Your task to perform on an android device: visit the assistant section in the google photos Image 0: 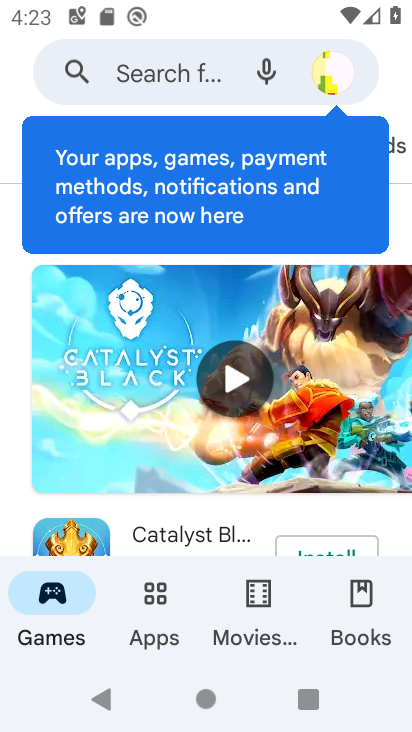
Step 0: press home button
Your task to perform on an android device: visit the assistant section in the google photos Image 1: 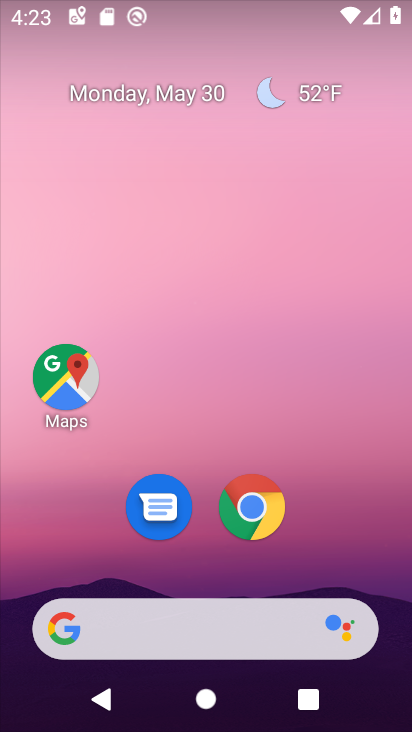
Step 1: drag from (333, 566) to (339, 121)
Your task to perform on an android device: visit the assistant section in the google photos Image 2: 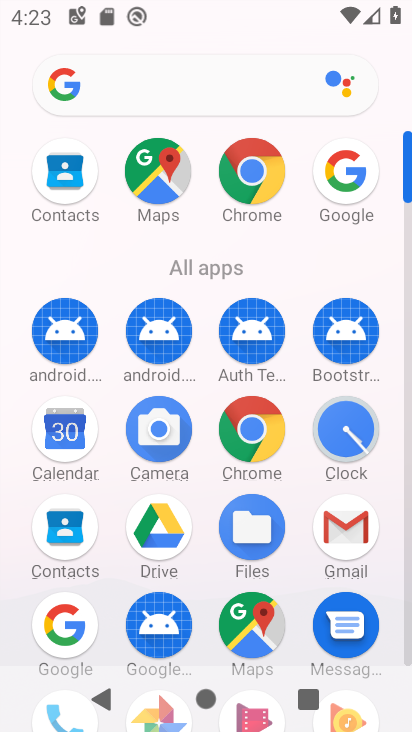
Step 2: drag from (302, 302) to (307, 11)
Your task to perform on an android device: visit the assistant section in the google photos Image 3: 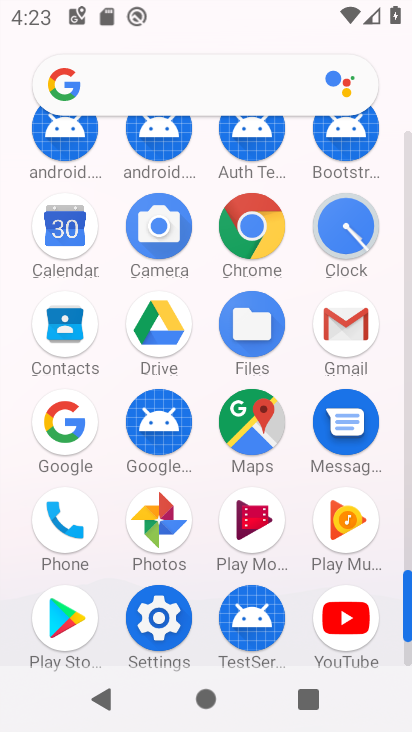
Step 3: click (145, 519)
Your task to perform on an android device: visit the assistant section in the google photos Image 4: 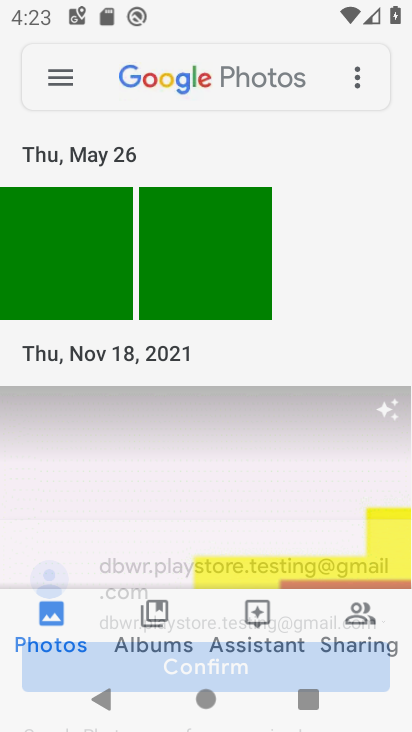
Step 4: click (267, 618)
Your task to perform on an android device: visit the assistant section in the google photos Image 5: 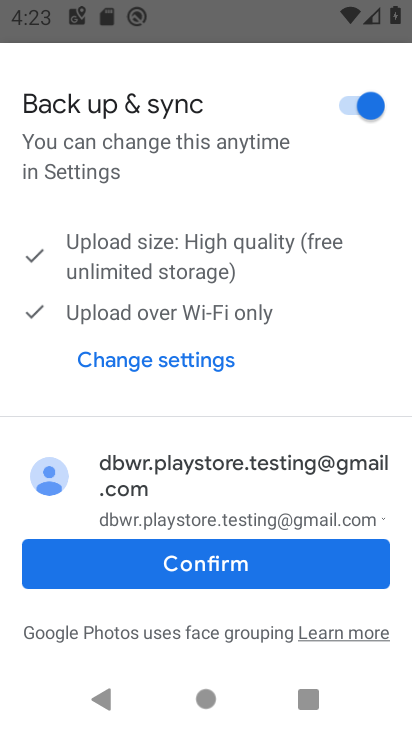
Step 5: click (345, 574)
Your task to perform on an android device: visit the assistant section in the google photos Image 6: 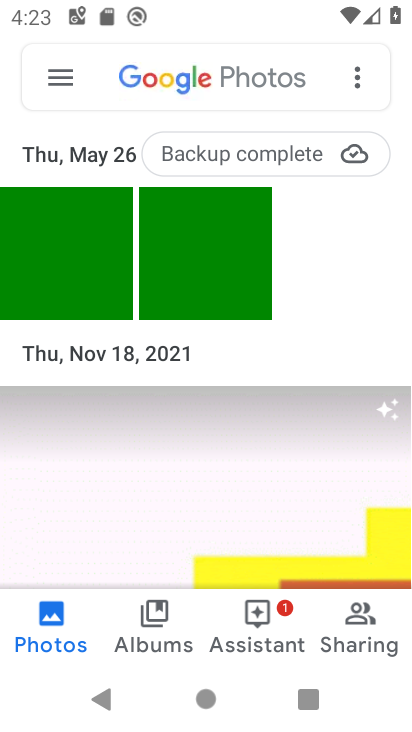
Step 6: click (265, 638)
Your task to perform on an android device: visit the assistant section in the google photos Image 7: 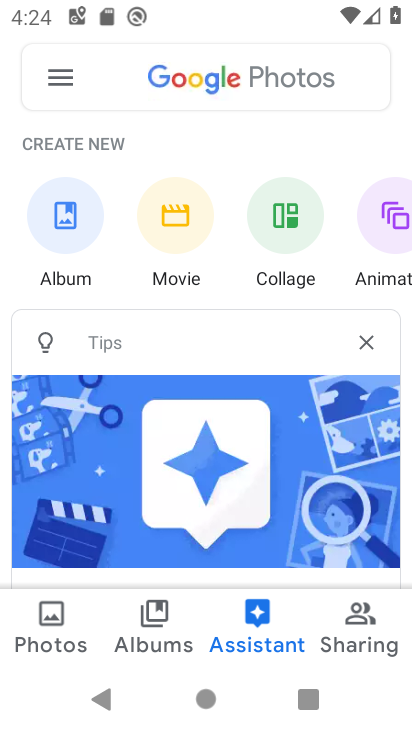
Step 7: task complete